Your task to perform on an android device: turn smart compose on in the gmail app Image 0: 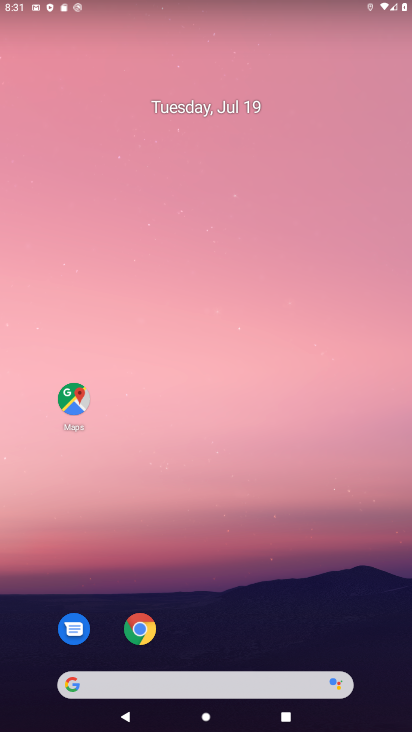
Step 0: drag from (223, 649) to (263, 57)
Your task to perform on an android device: turn smart compose on in the gmail app Image 1: 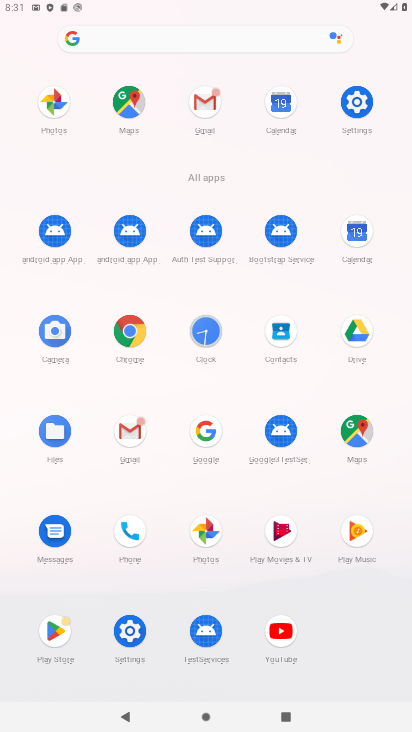
Step 1: click (129, 428)
Your task to perform on an android device: turn smart compose on in the gmail app Image 2: 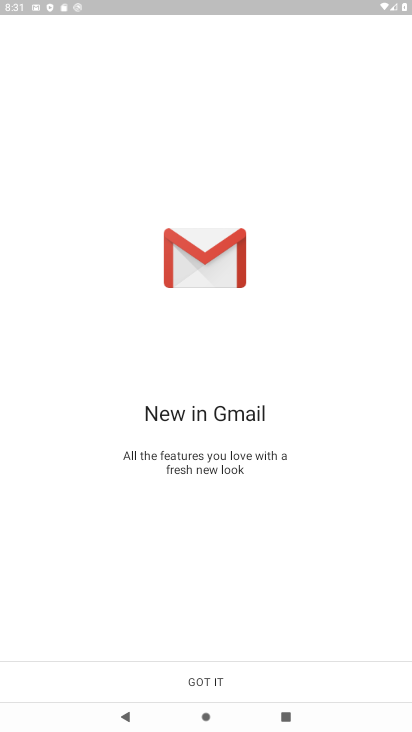
Step 2: click (207, 678)
Your task to perform on an android device: turn smart compose on in the gmail app Image 3: 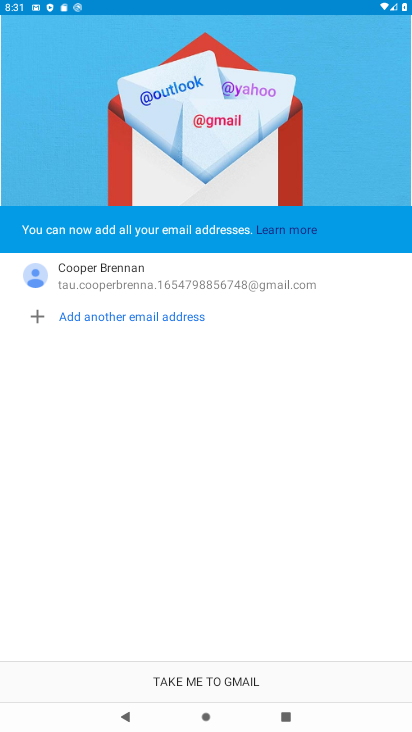
Step 3: click (210, 681)
Your task to perform on an android device: turn smart compose on in the gmail app Image 4: 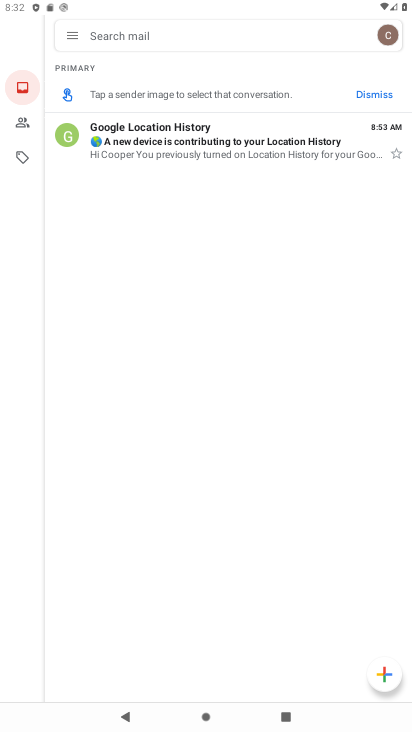
Step 4: click (70, 27)
Your task to perform on an android device: turn smart compose on in the gmail app Image 5: 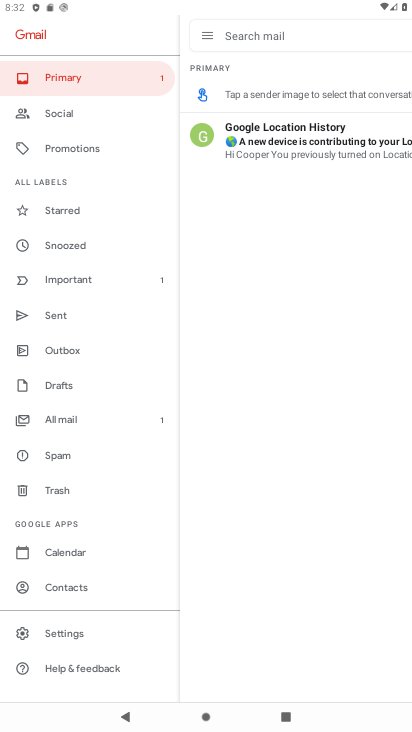
Step 5: click (82, 629)
Your task to perform on an android device: turn smart compose on in the gmail app Image 6: 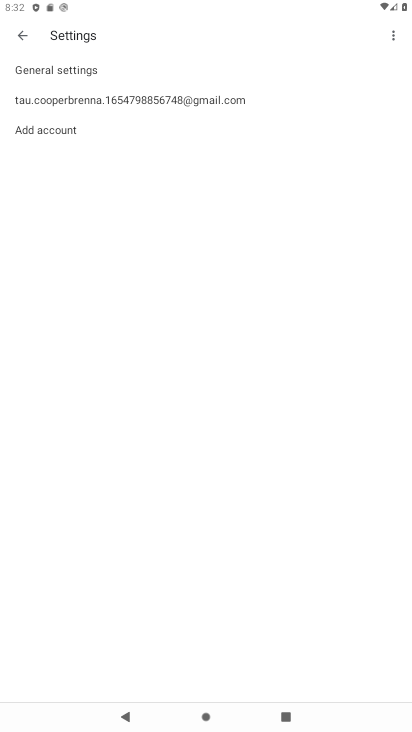
Step 6: click (139, 95)
Your task to perform on an android device: turn smart compose on in the gmail app Image 7: 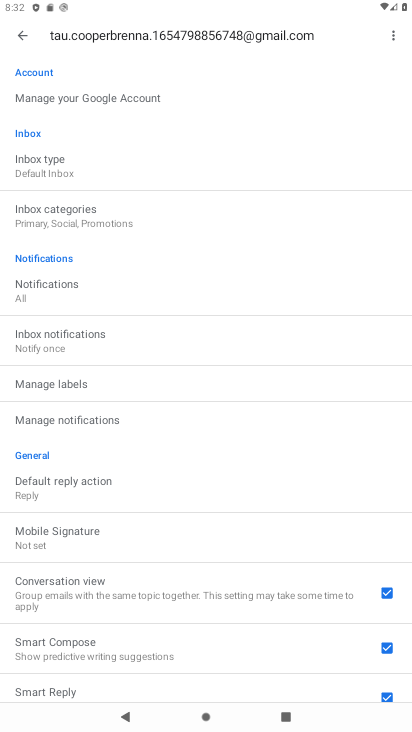
Step 7: task complete